Your task to perform on an android device: turn on the 24-hour format for clock Image 0: 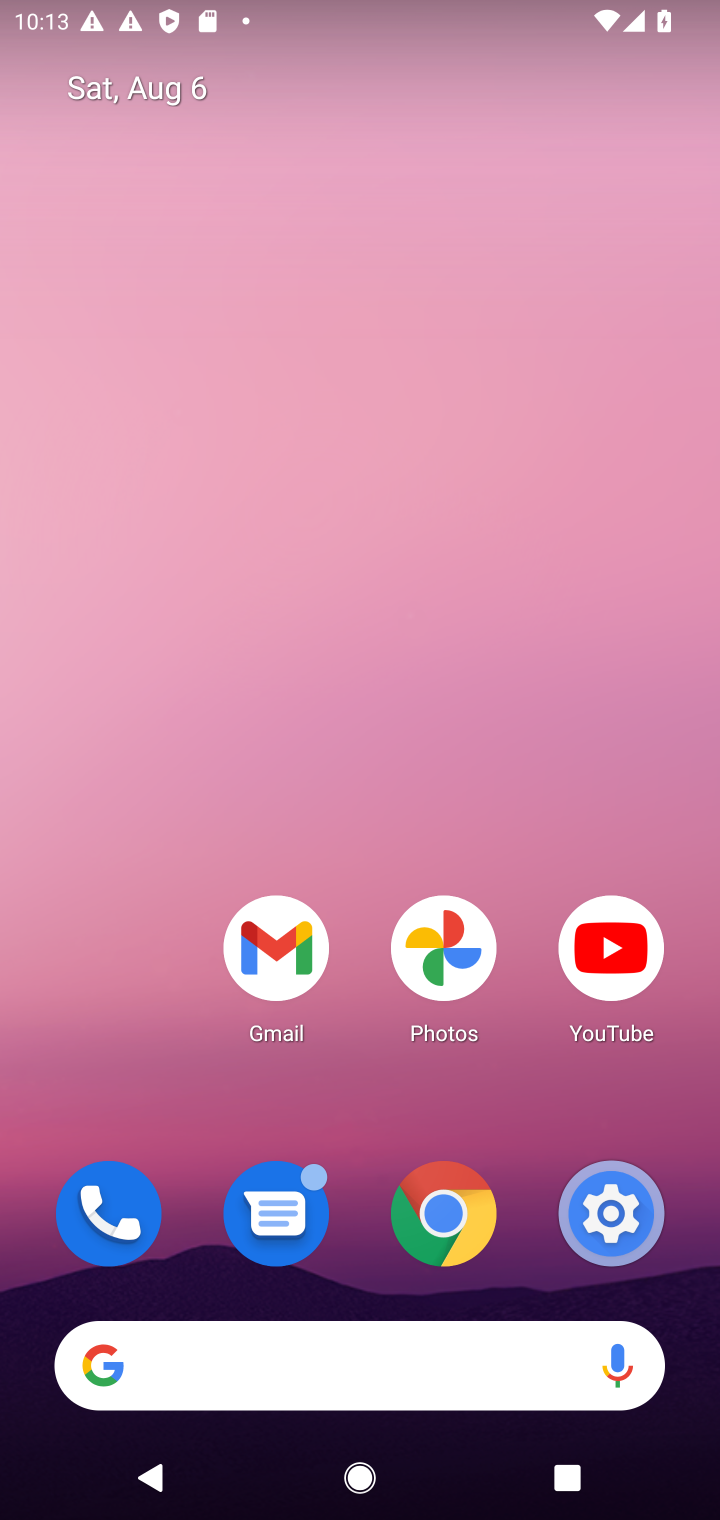
Step 0: drag from (514, 417) to (578, 156)
Your task to perform on an android device: turn on the 24-hour format for clock Image 1: 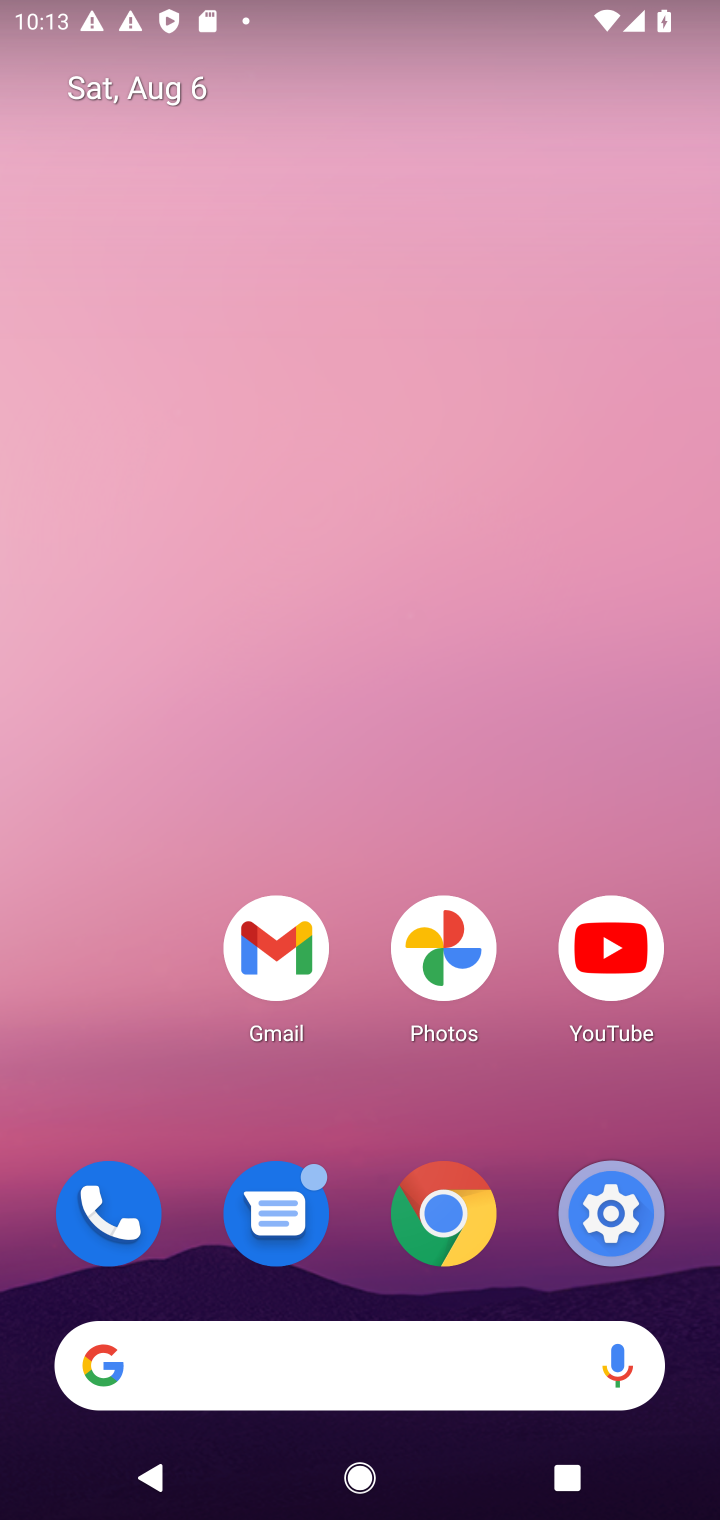
Step 1: drag from (382, 865) to (575, 157)
Your task to perform on an android device: turn on the 24-hour format for clock Image 2: 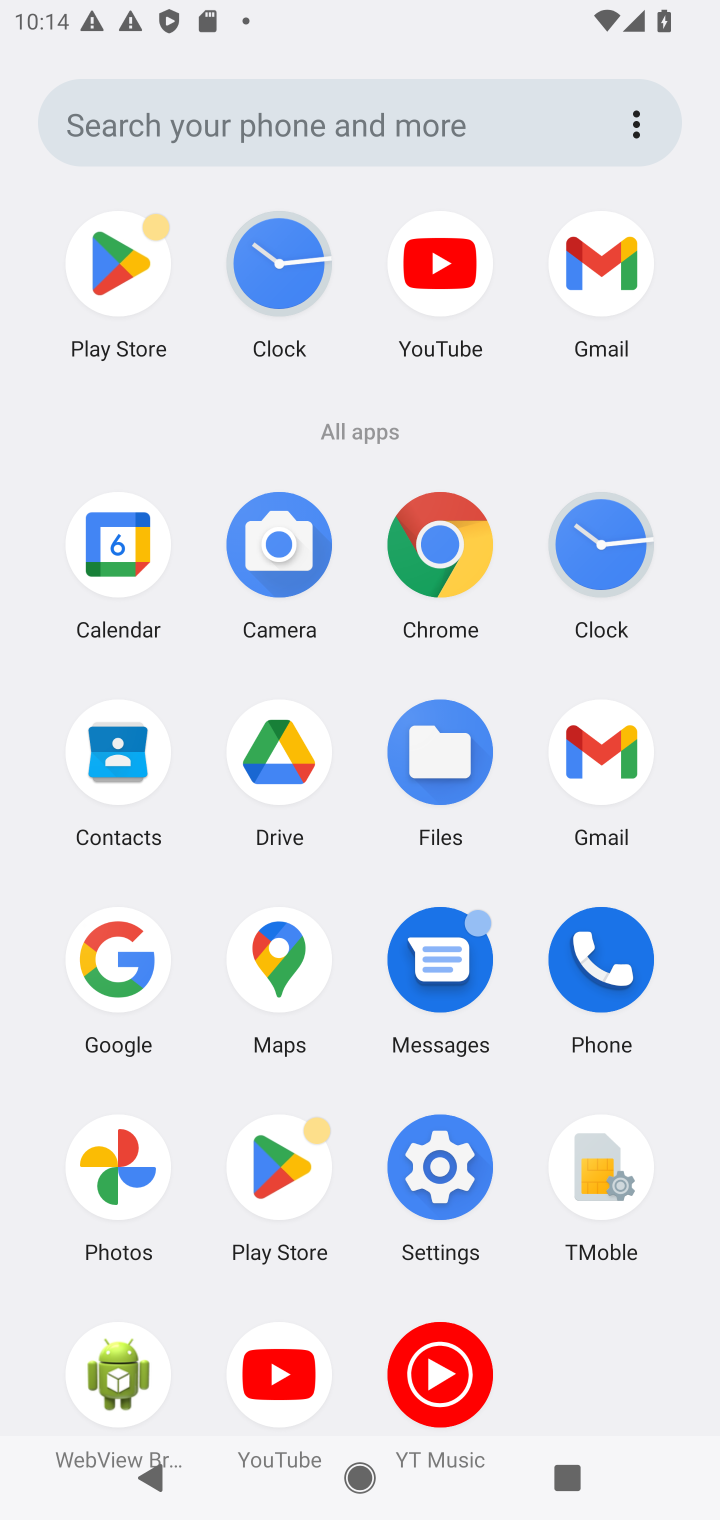
Step 2: click (614, 553)
Your task to perform on an android device: turn on the 24-hour format for clock Image 3: 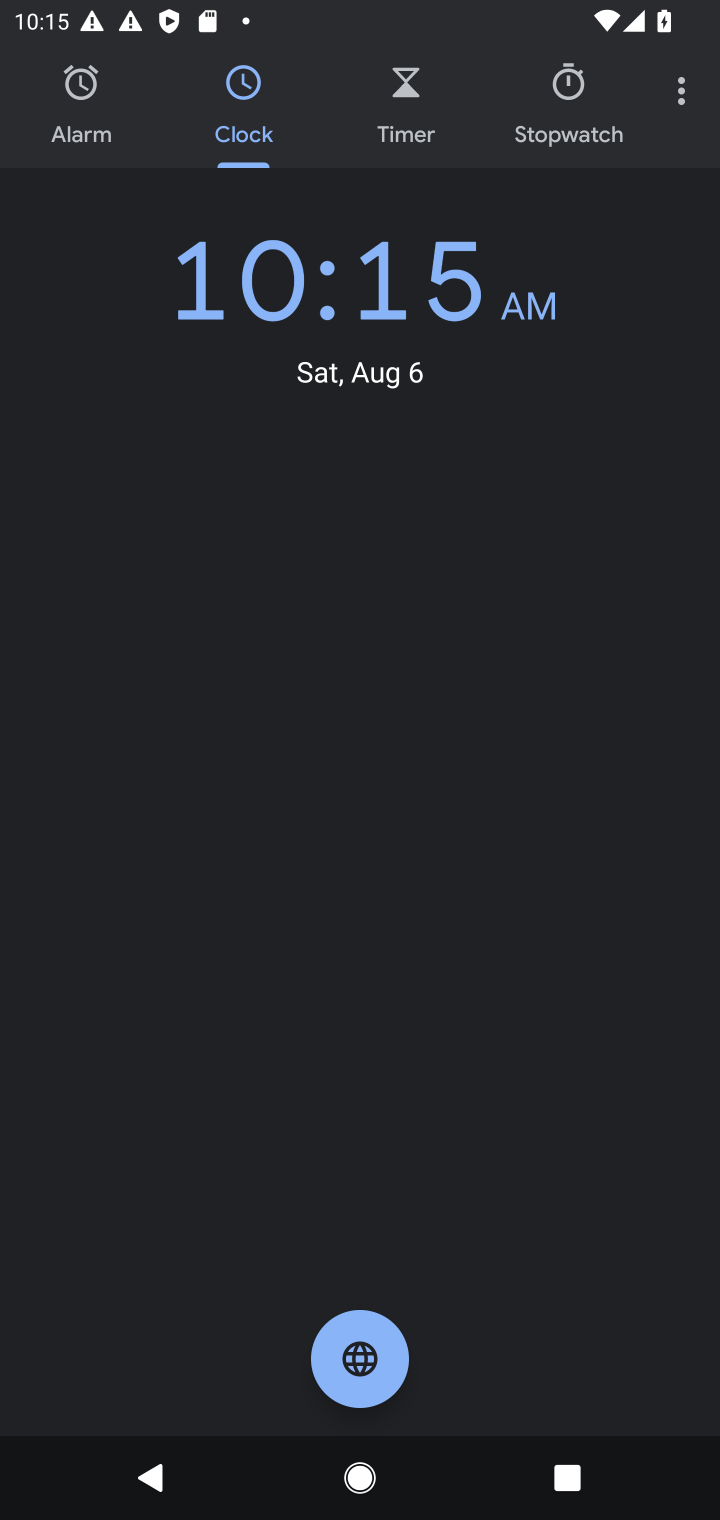
Step 3: click (685, 108)
Your task to perform on an android device: turn on the 24-hour format for clock Image 4: 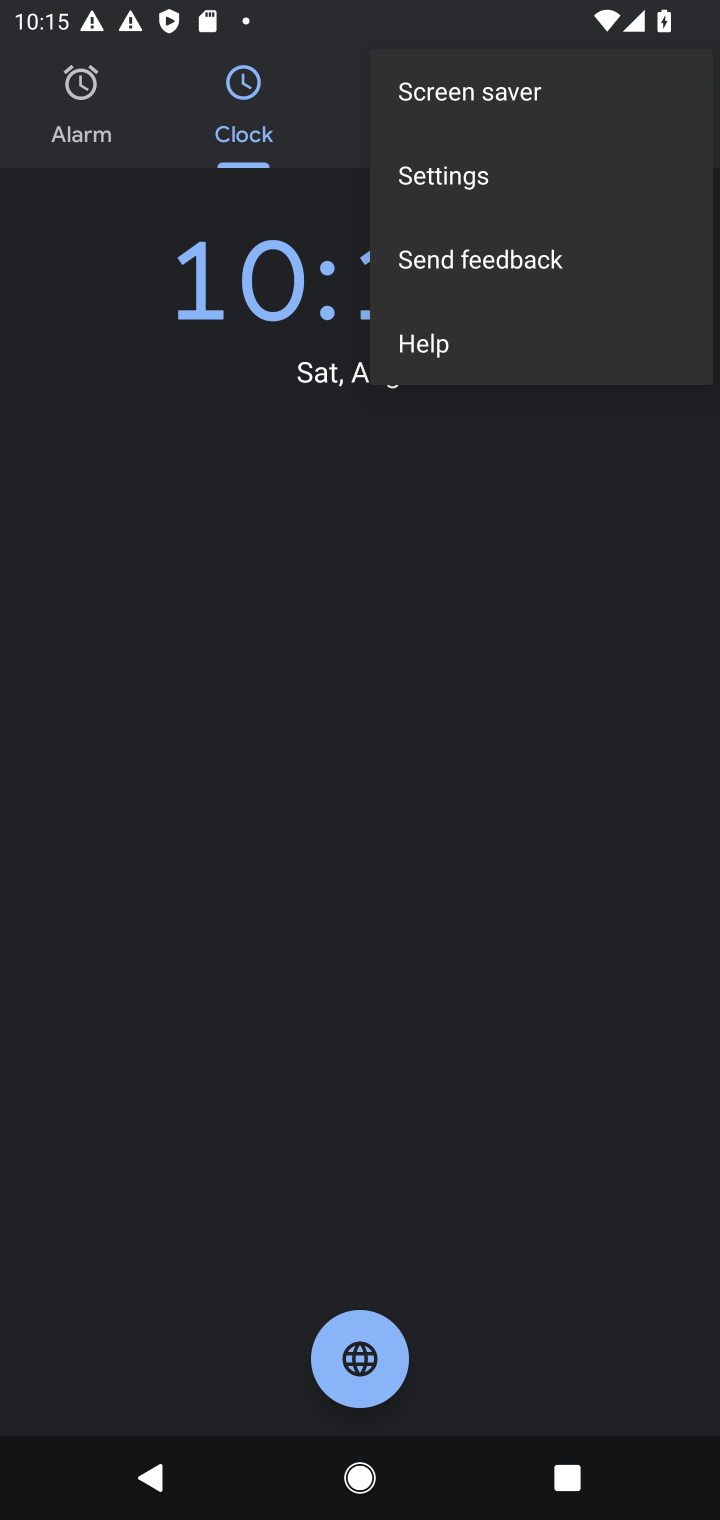
Step 4: click (474, 184)
Your task to perform on an android device: turn on the 24-hour format for clock Image 5: 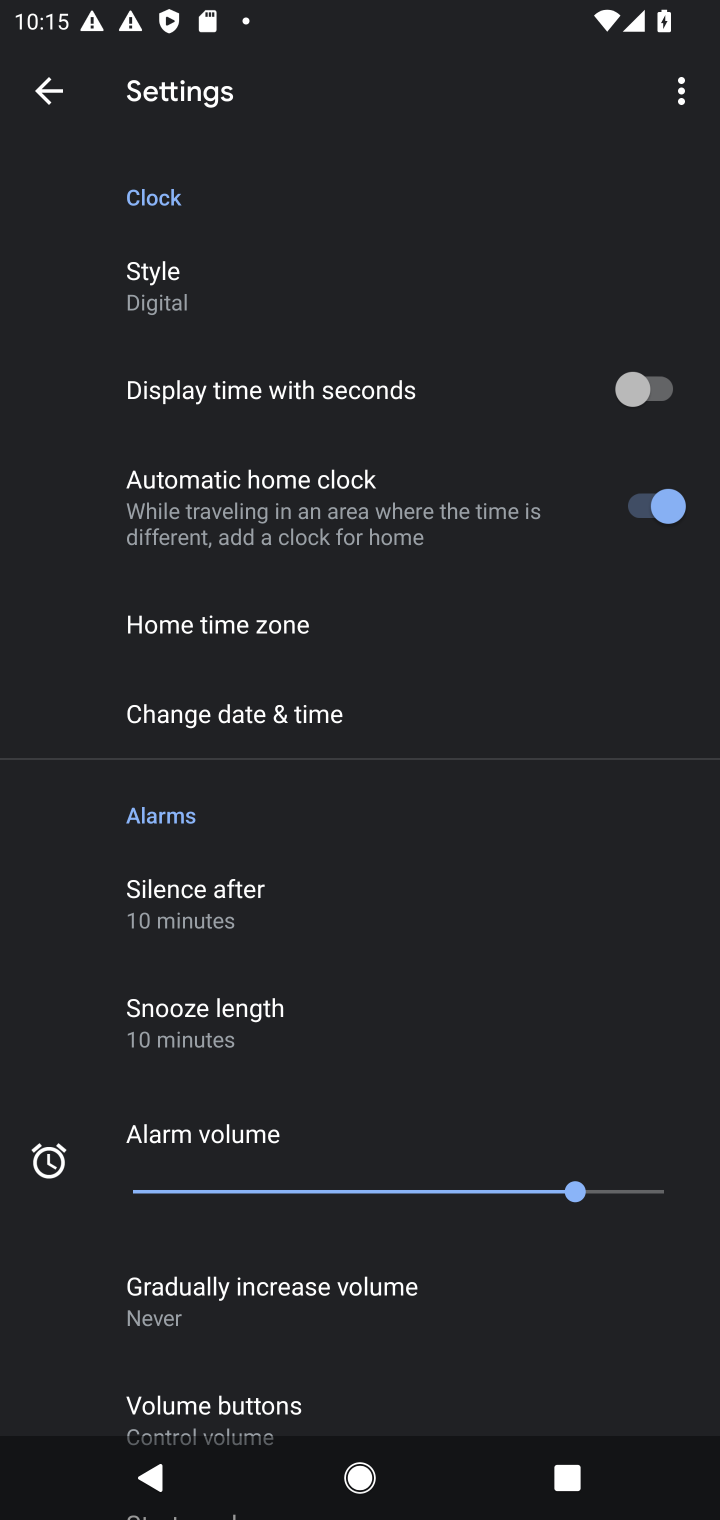
Step 5: task complete